Your task to perform on an android device: Open calendar and show me the third week of next month Image 0: 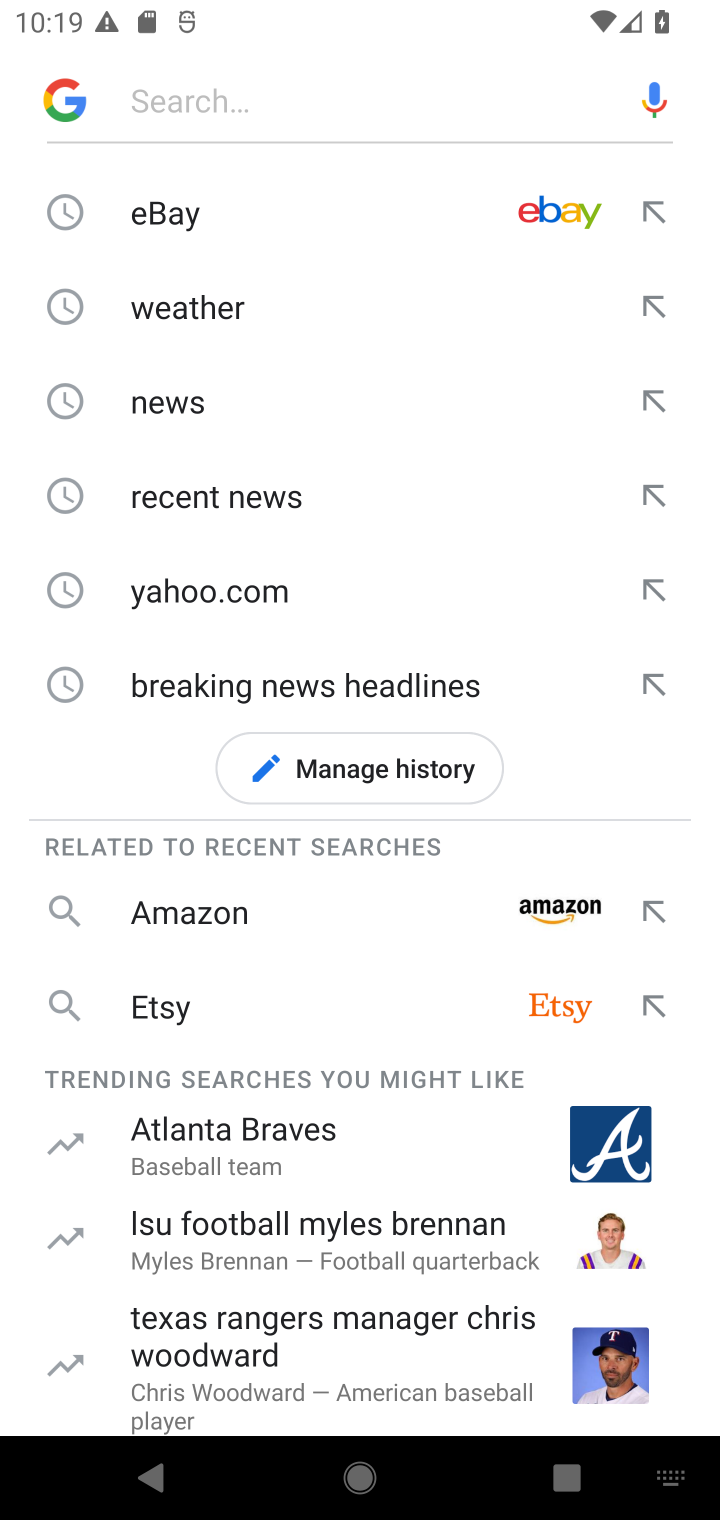
Step 0: press home button
Your task to perform on an android device: Open calendar and show me the third week of next month Image 1: 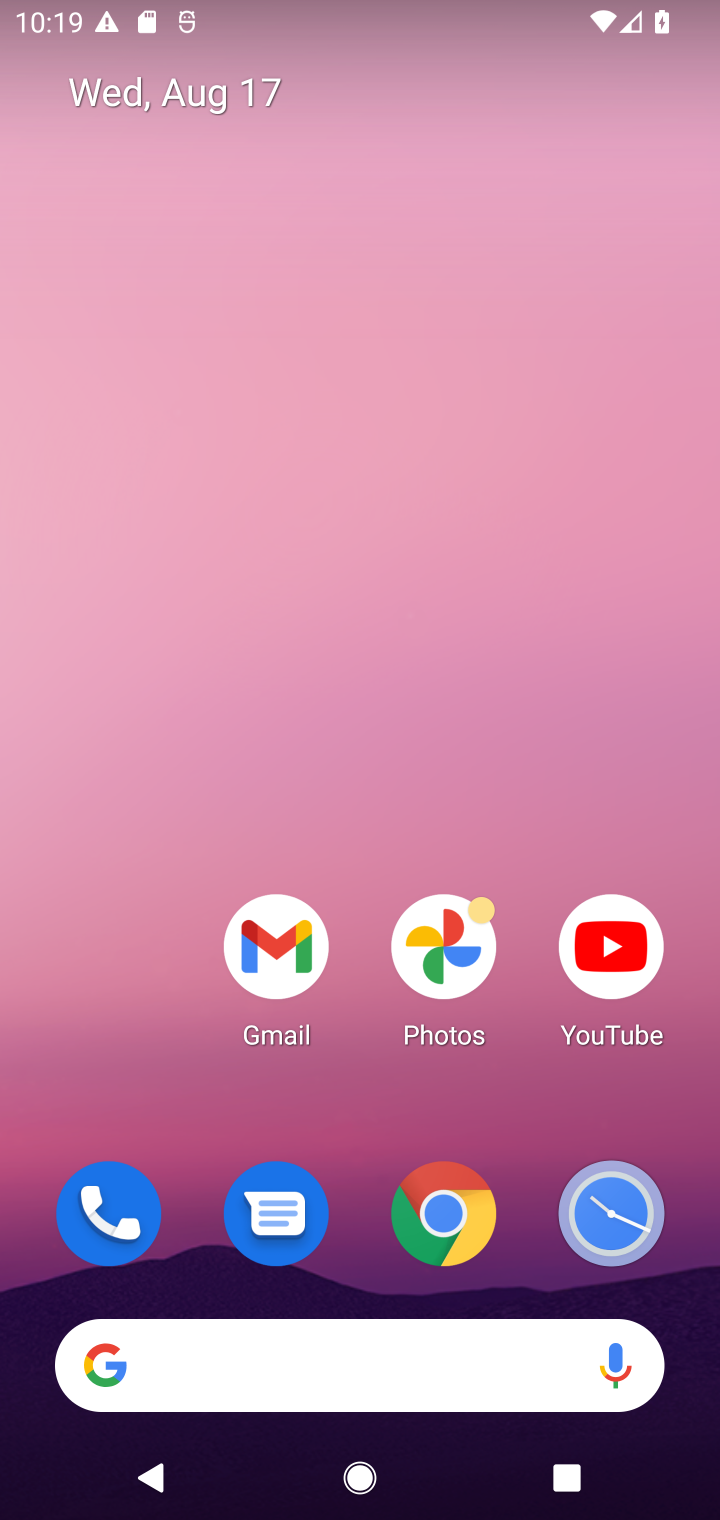
Step 1: drag from (500, 951) to (325, 53)
Your task to perform on an android device: Open calendar and show me the third week of next month Image 2: 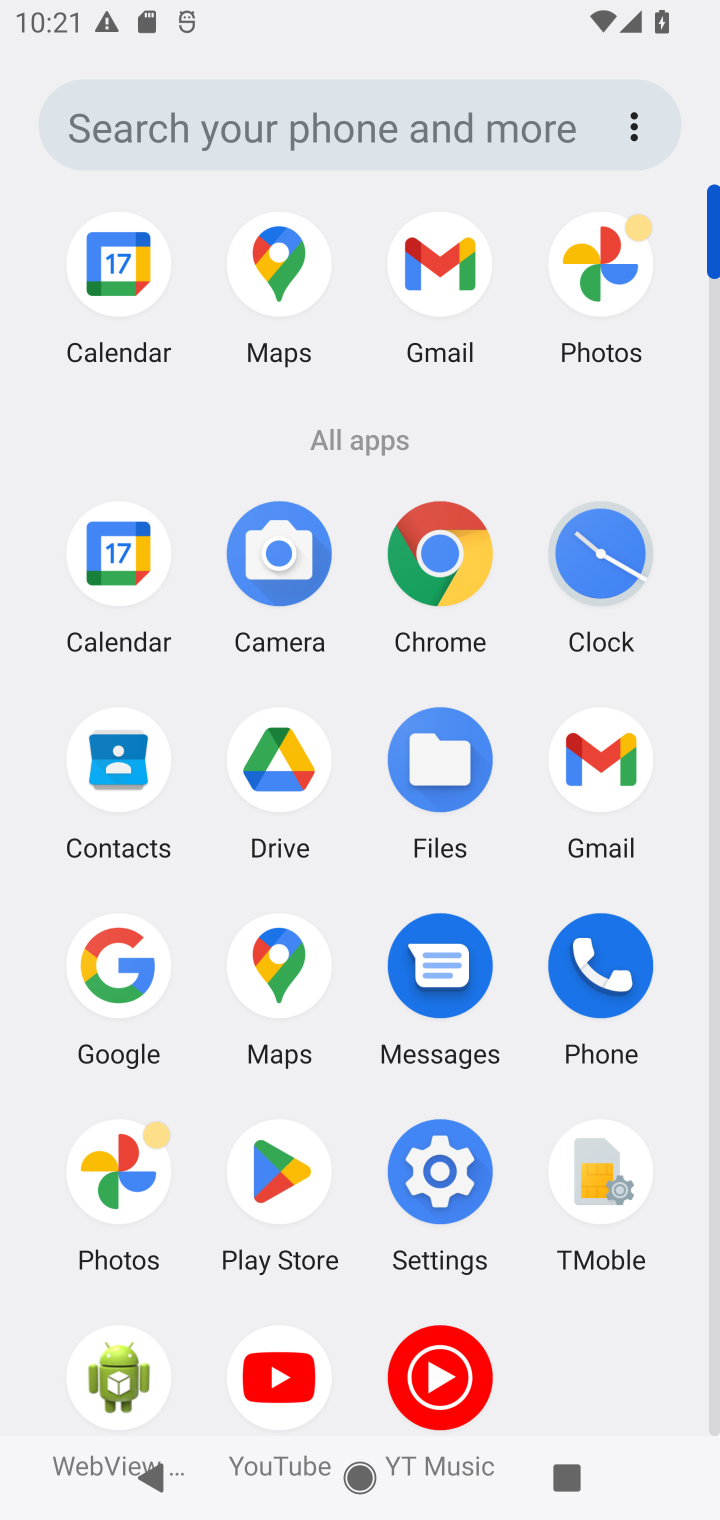
Step 2: click (120, 582)
Your task to perform on an android device: Open calendar and show me the third week of next month Image 3: 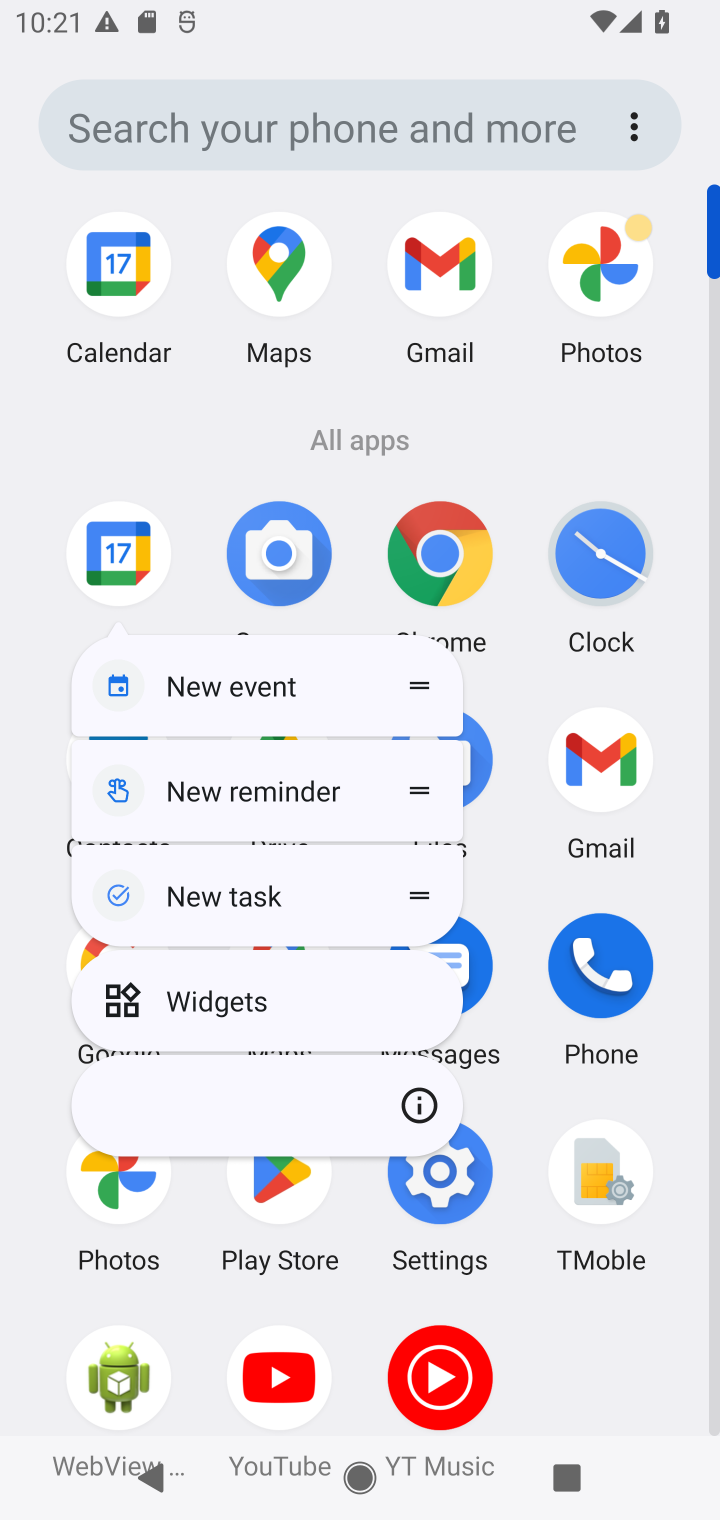
Step 3: click (120, 582)
Your task to perform on an android device: Open calendar and show me the third week of next month Image 4: 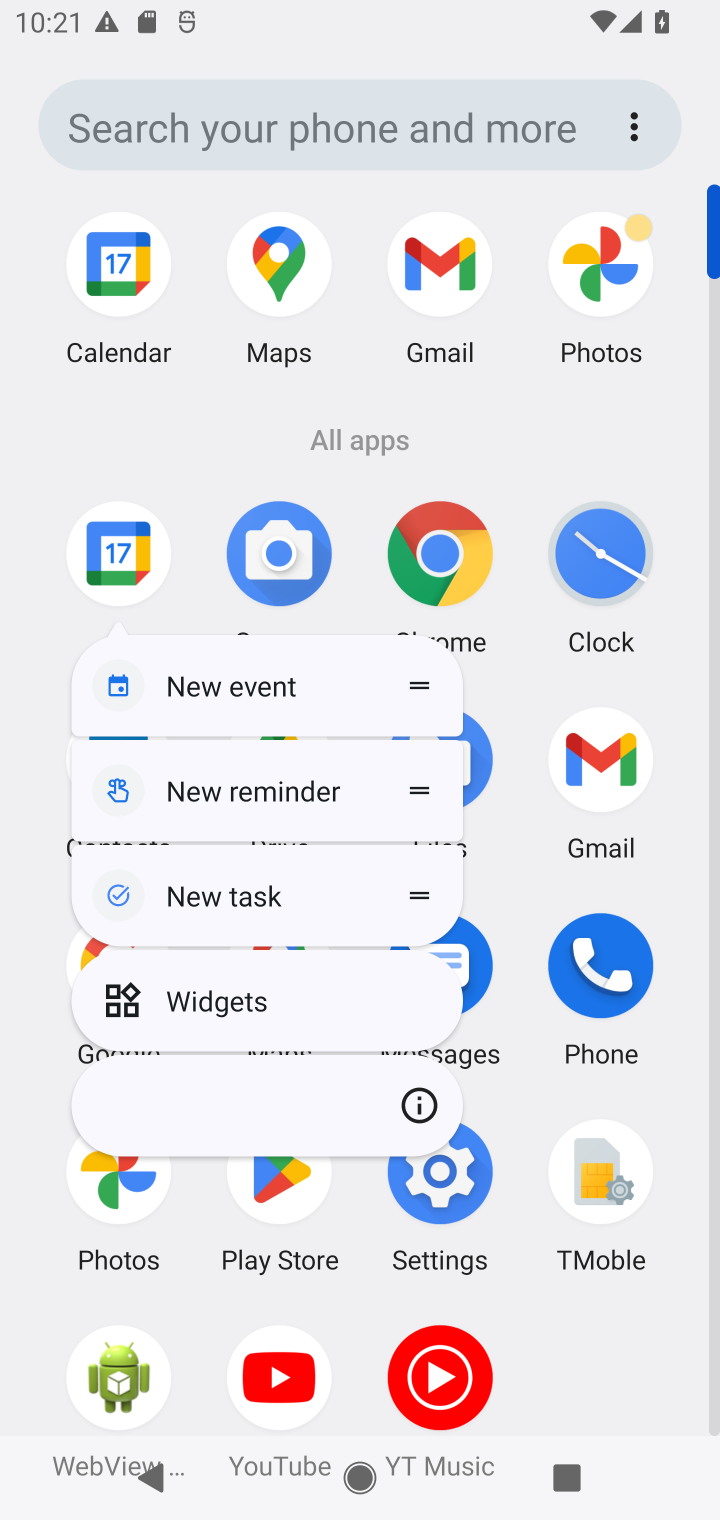
Step 4: click (120, 582)
Your task to perform on an android device: Open calendar and show me the third week of next month Image 5: 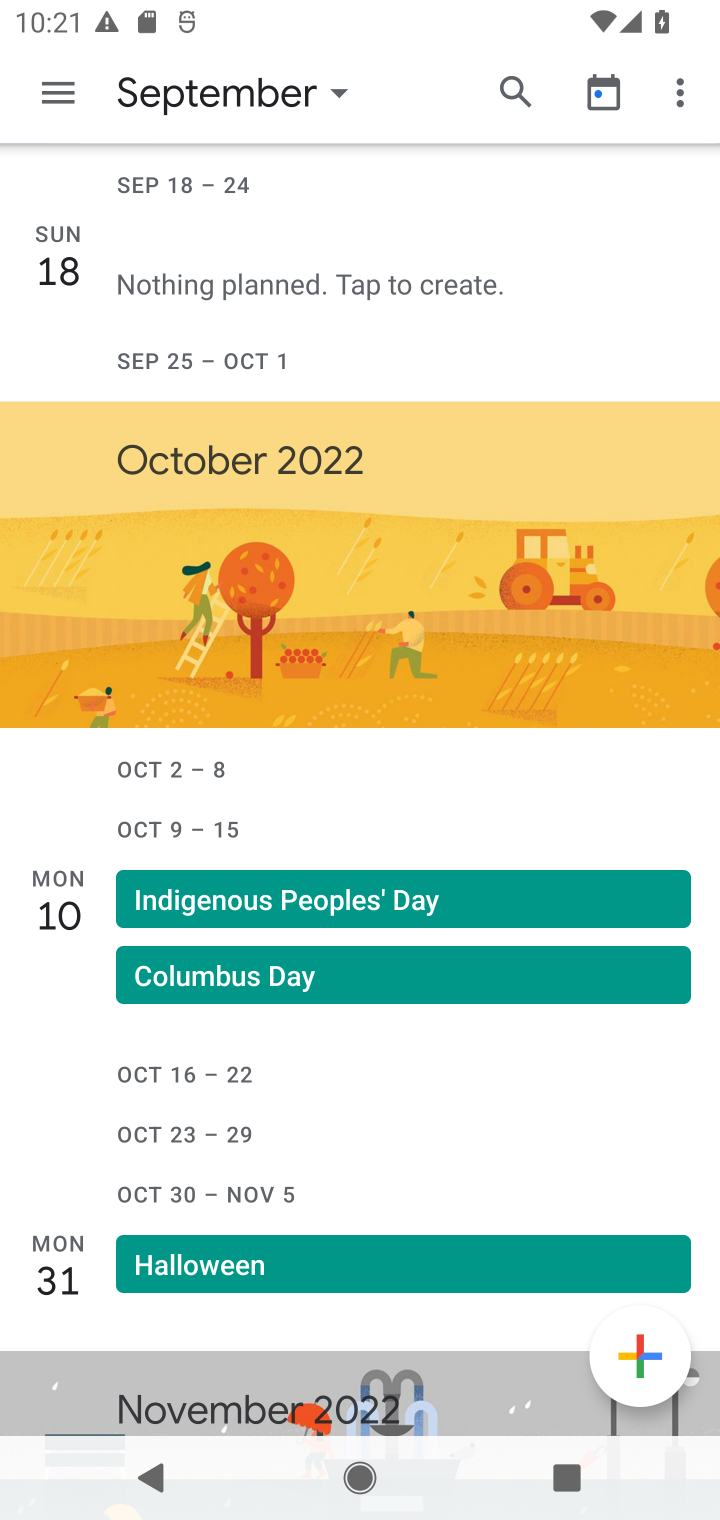
Step 5: click (248, 110)
Your task to perform on an android device: Open calendar and show me the third week of next month Image 6: 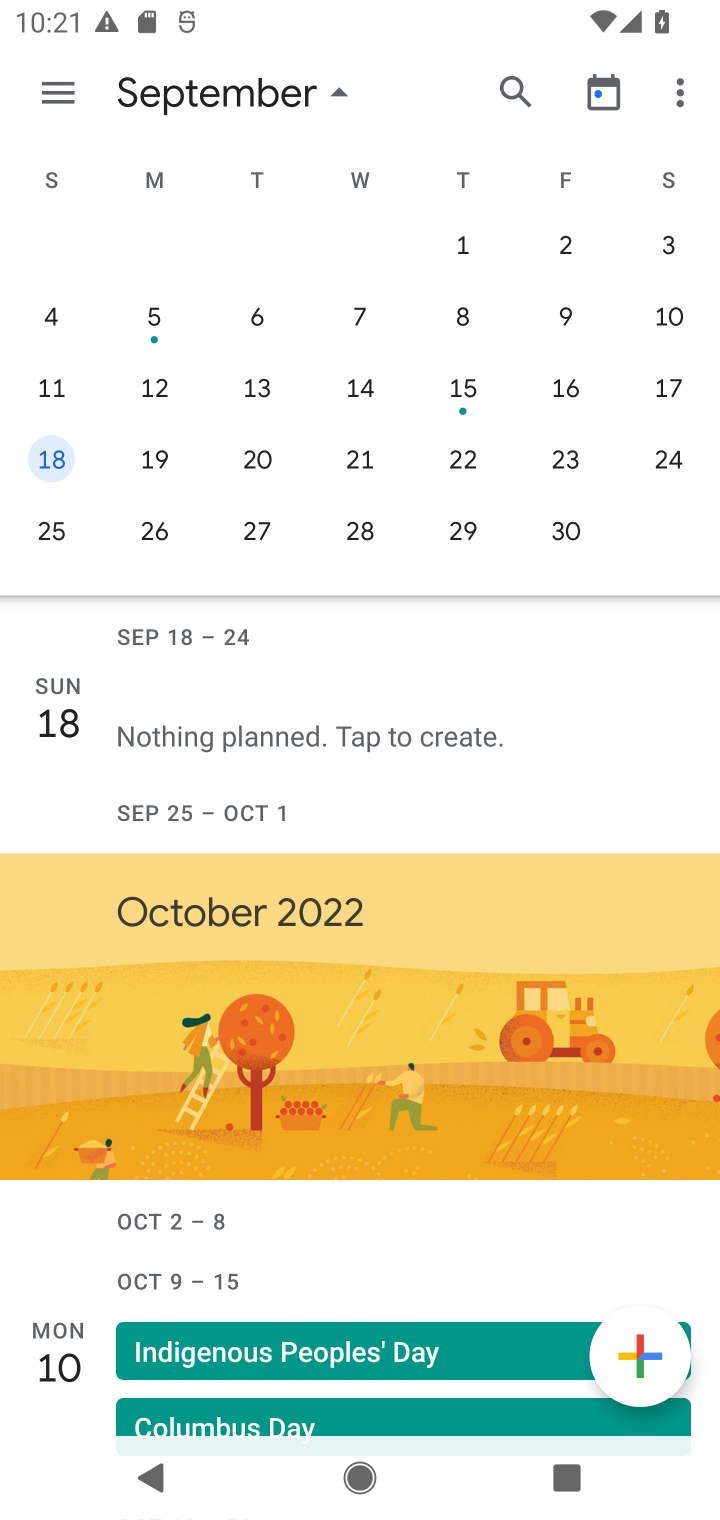
Step 6: drag from (621, 393) to (24, 466)
Your task to perform on an android device: Open calendar and show me the third week of next month Image 7: 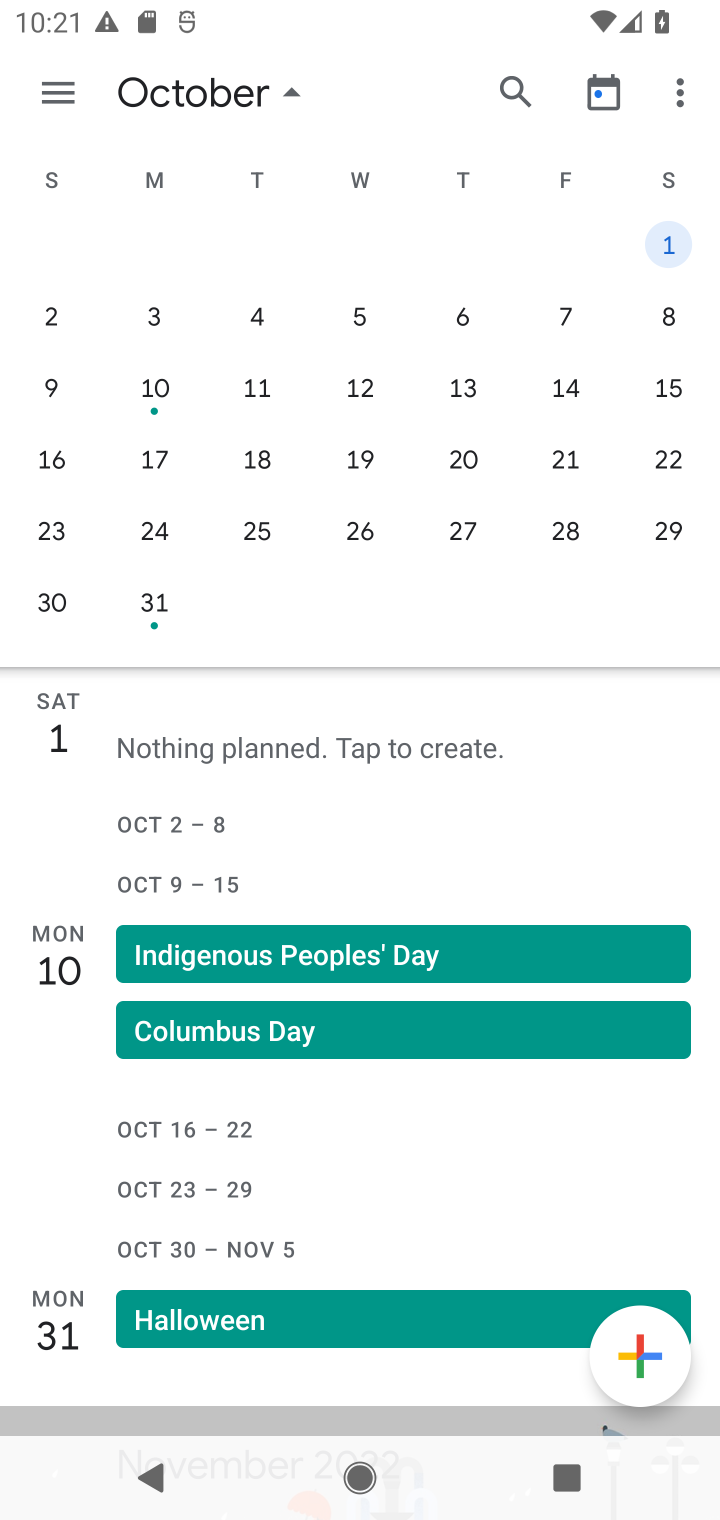
Step 7: click (46, 470)
Your task to perform on an android device: Open calendar and show me the third week of next month Image 8: 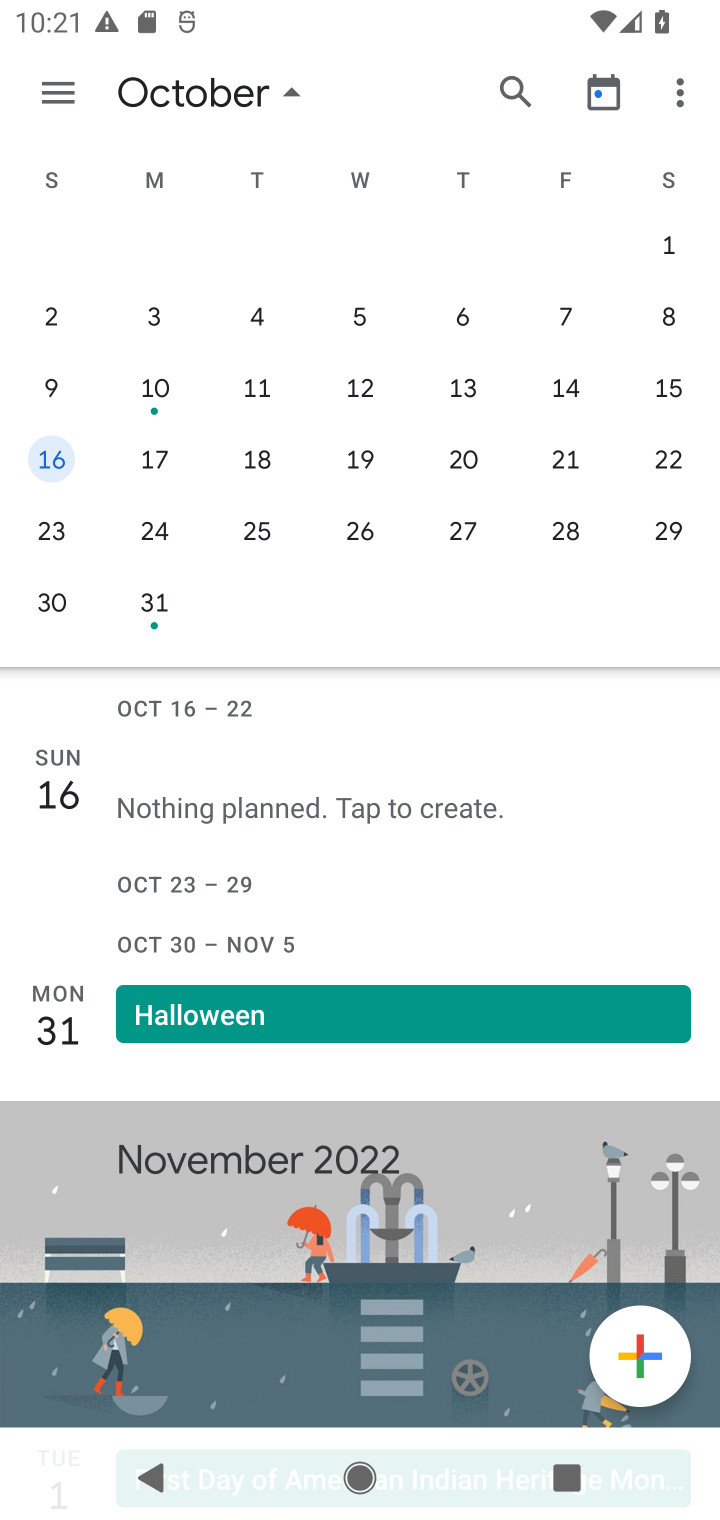
Step 8: task complete